Your task to perform on an android device: turn on translation in the chrome app Image 0: 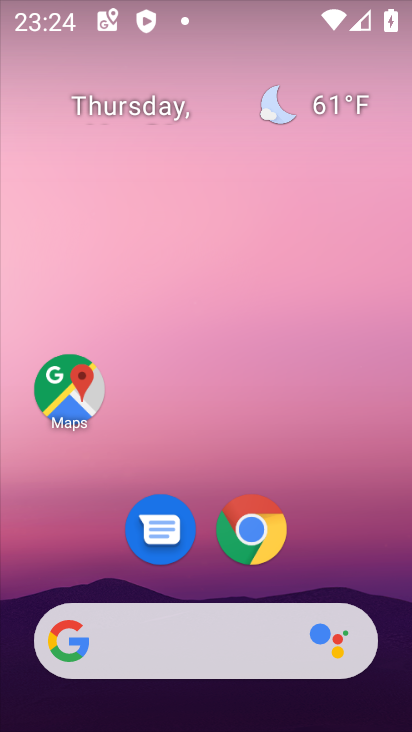
Step 0: click (254, 544)
Your task to perform on an android device: turn on translation in the chrome app Image 1: 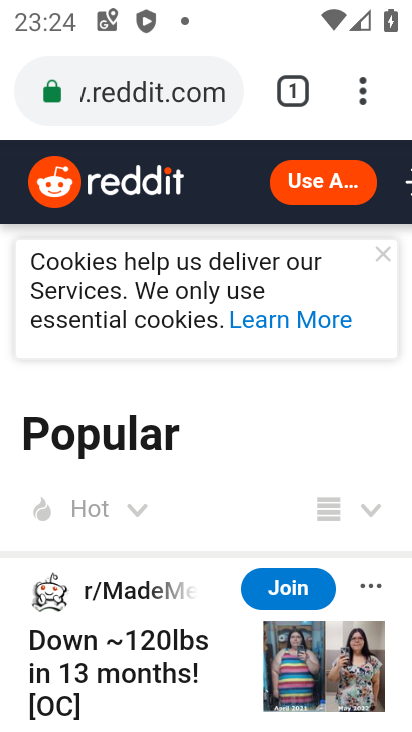
Step 1: click (371, 85)
Your task to perform on an android device: turn on translation in the chrome app Image 2: 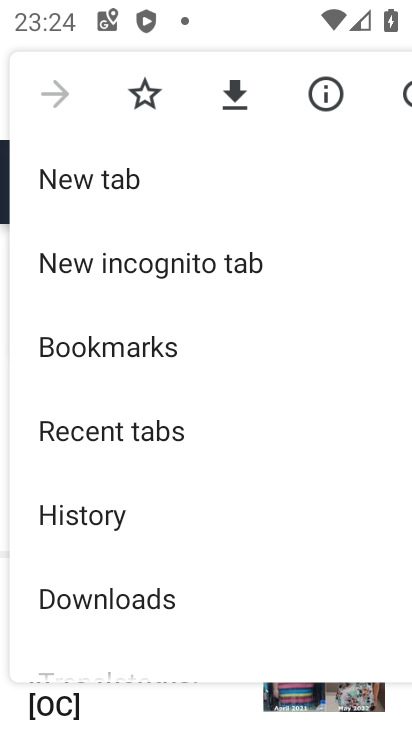
Step 2: drag from (189, 592) to (153, 175)
Your task to perform on an android device: turn on translation in the chrome app Image 3: 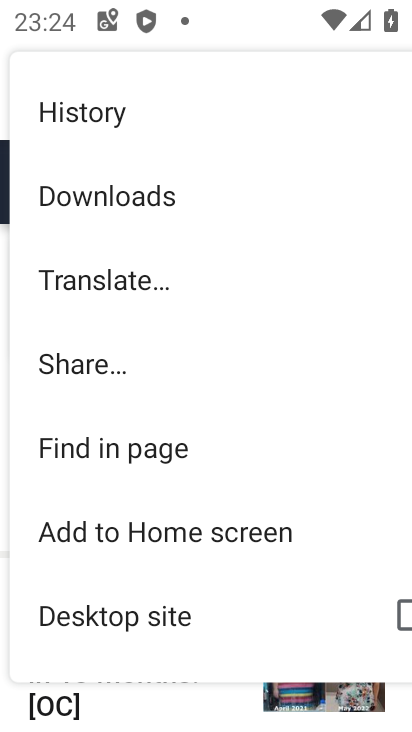
Step 3: drag from (212, 542) to (214, 250)
Your task to perform on an android device: turn on translation in the chrome app Image 4: 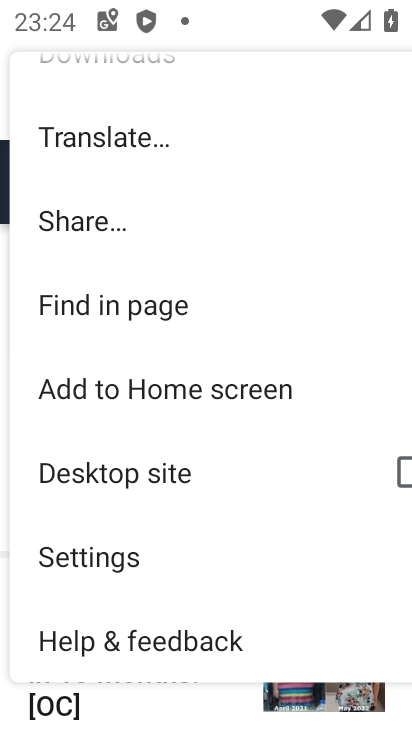
Step 4: click (178, 548)
Your task to perform on an android device: turn on translation in the chrome app Image 5: 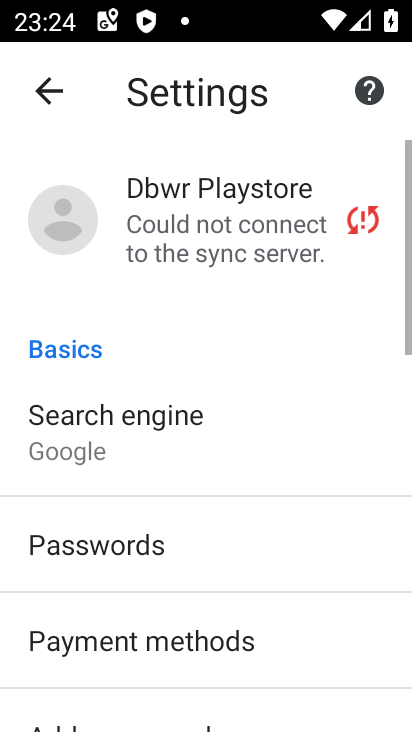
Step 5: drag from (220, 627) to (180, 89)
Your task to perform on an android device: turn on translation in the chrome app Image 6: 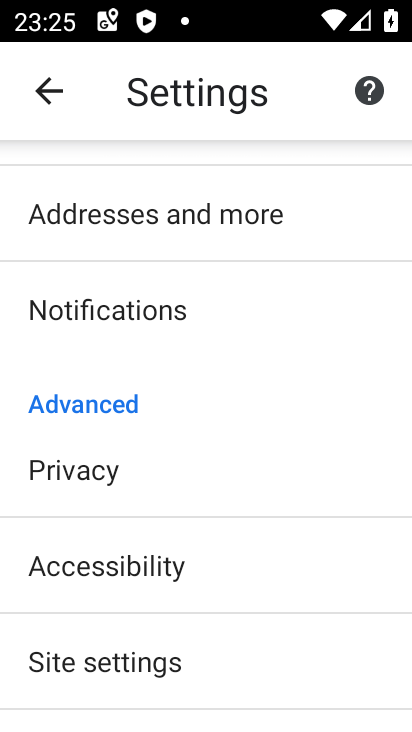
Step 6: drag from (204, 612) to (204, 410)
Your task to perform on an android device: turn on translation in the chrome app Image 7: 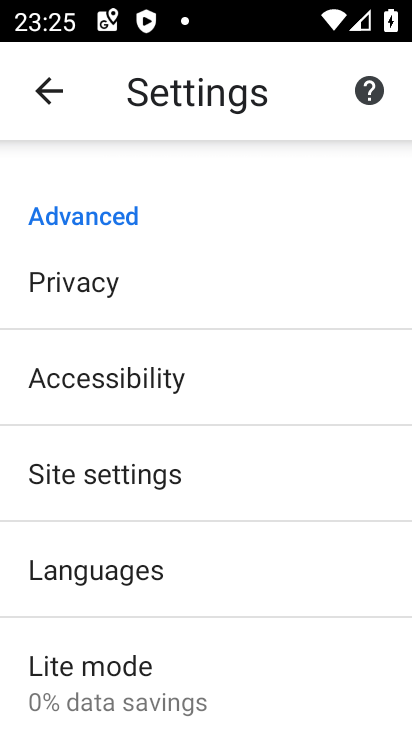
Step 7: click (228, 572)
Your task to perform on an android device: turn on translation in the chrome app Image 8: 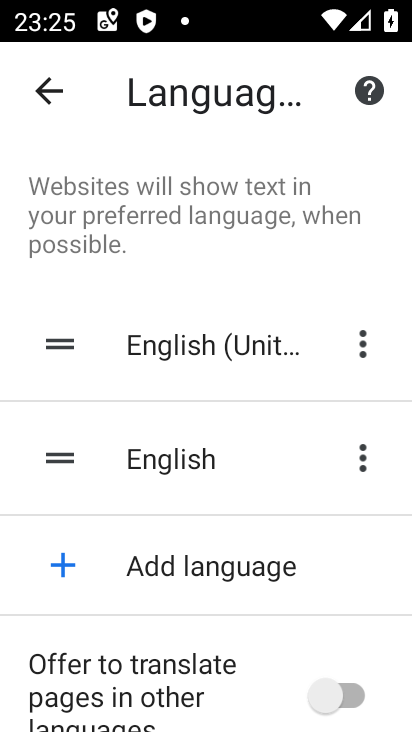
Step 8: task complete